Your task to perform on an android device: Open privacy settings Image 0: 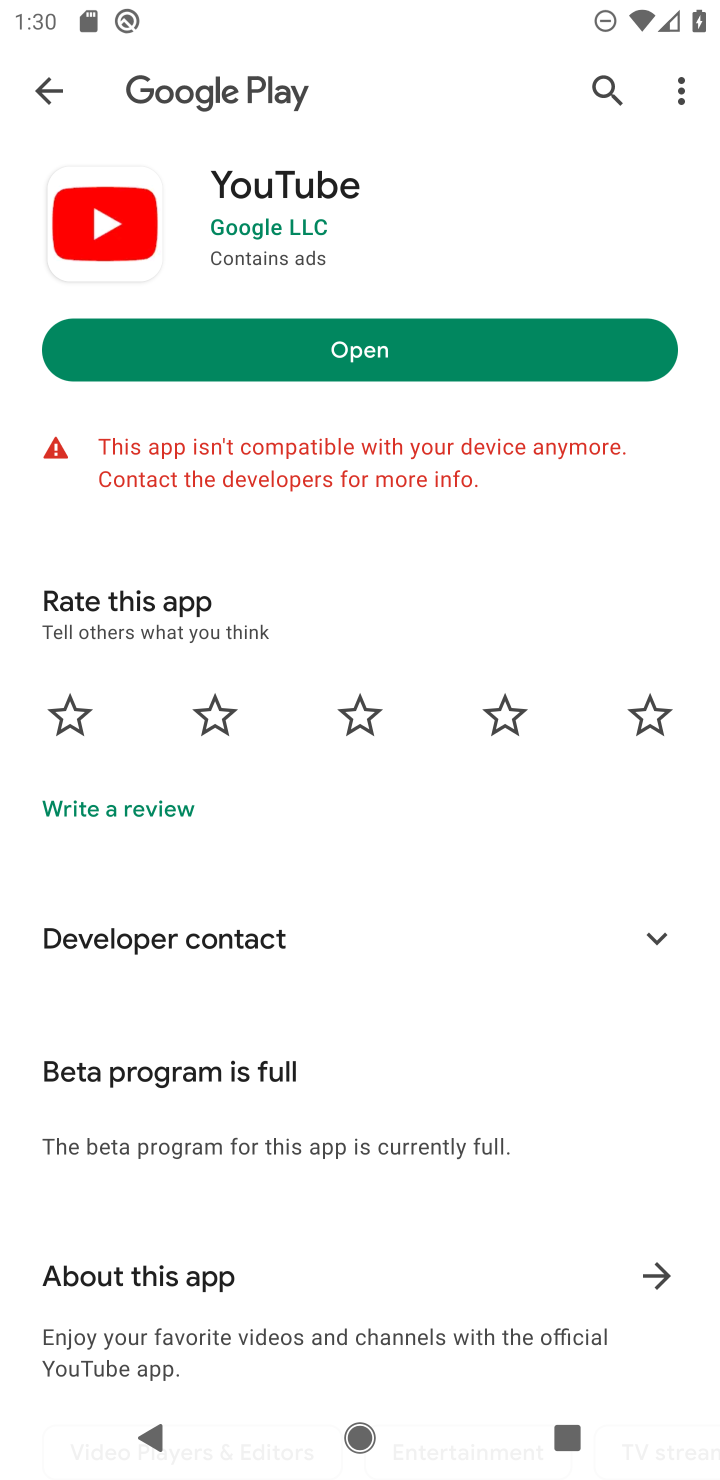
Step 0: press home button
Your task to perform on an android device: Open privacy settings Image 1: 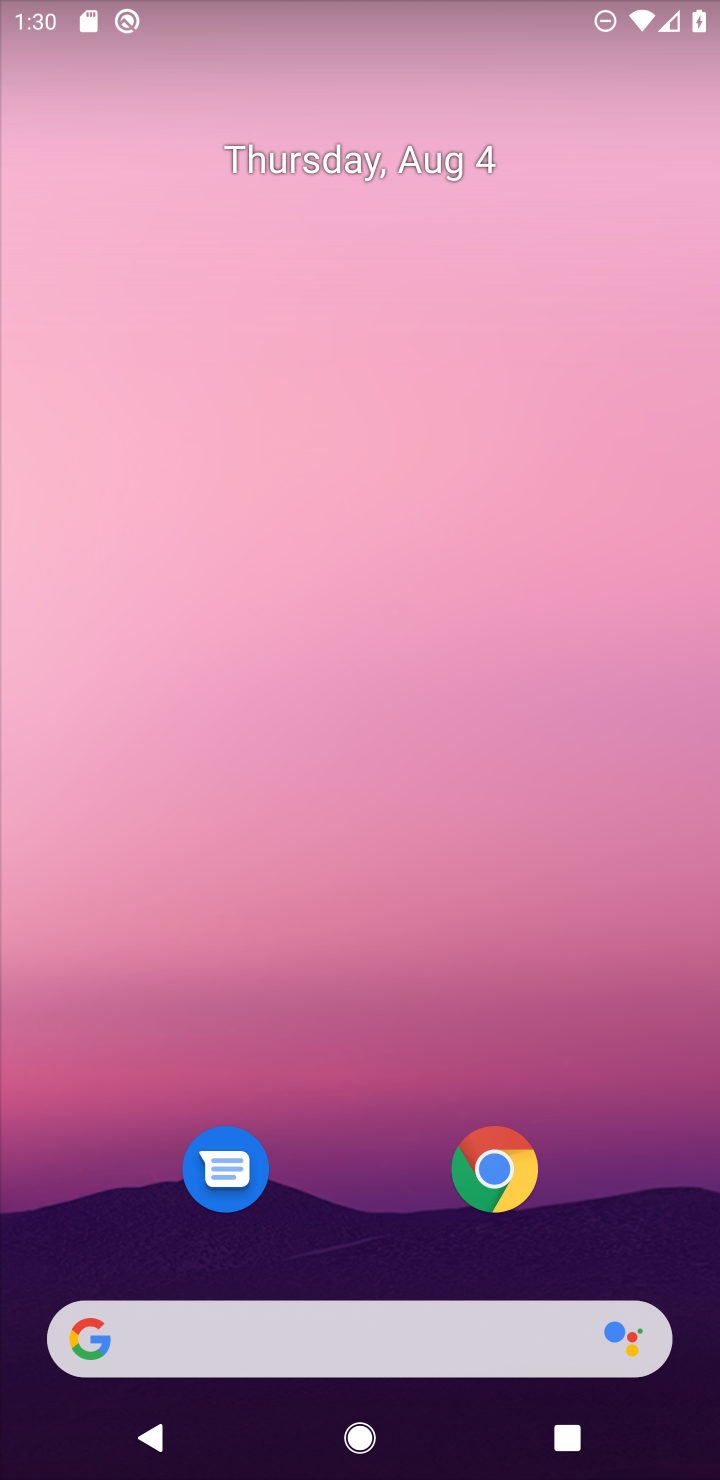
Step 1: drag from (413, 926) to (433, 106)
Your task to perform on an android device: Open privacy settings Image 2: 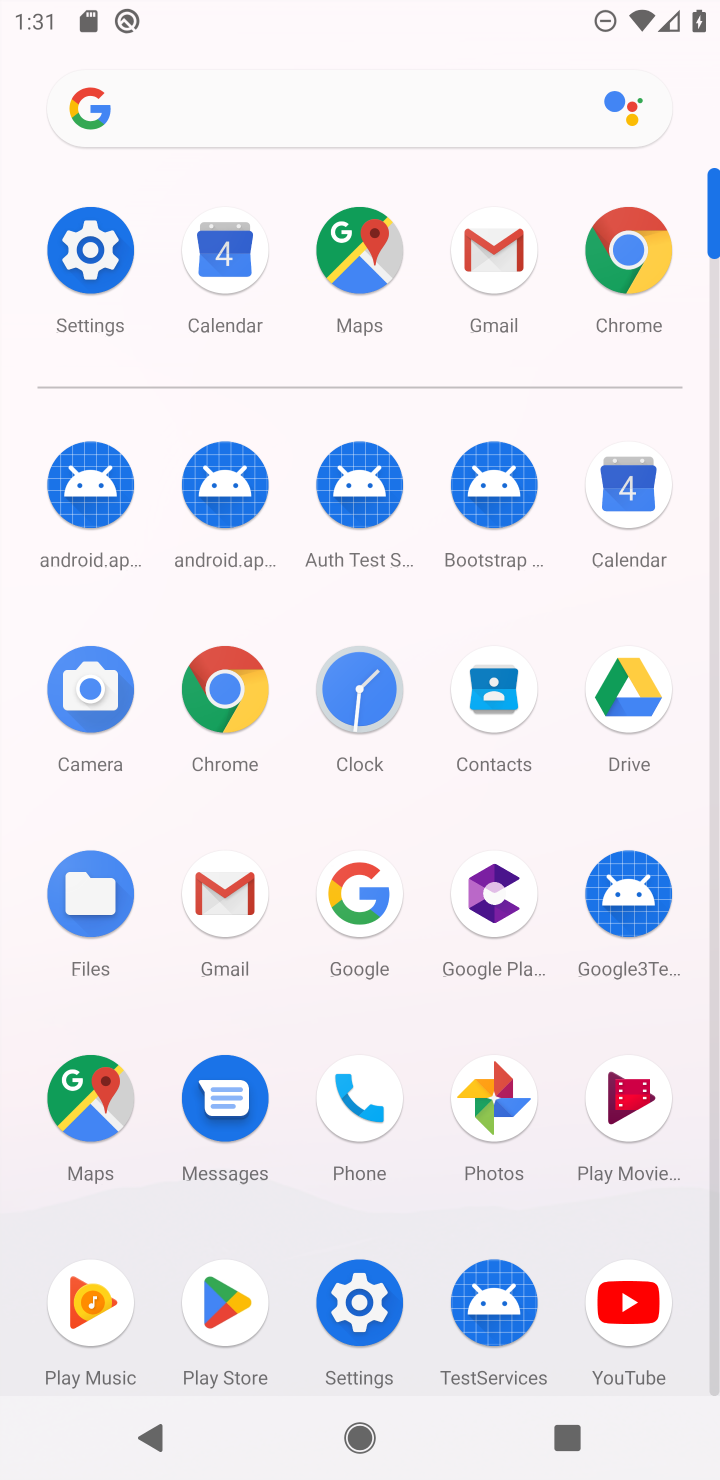
Step 2: click (99, 253)
Your task to perform on an android device: Open privacy settings Image 3: 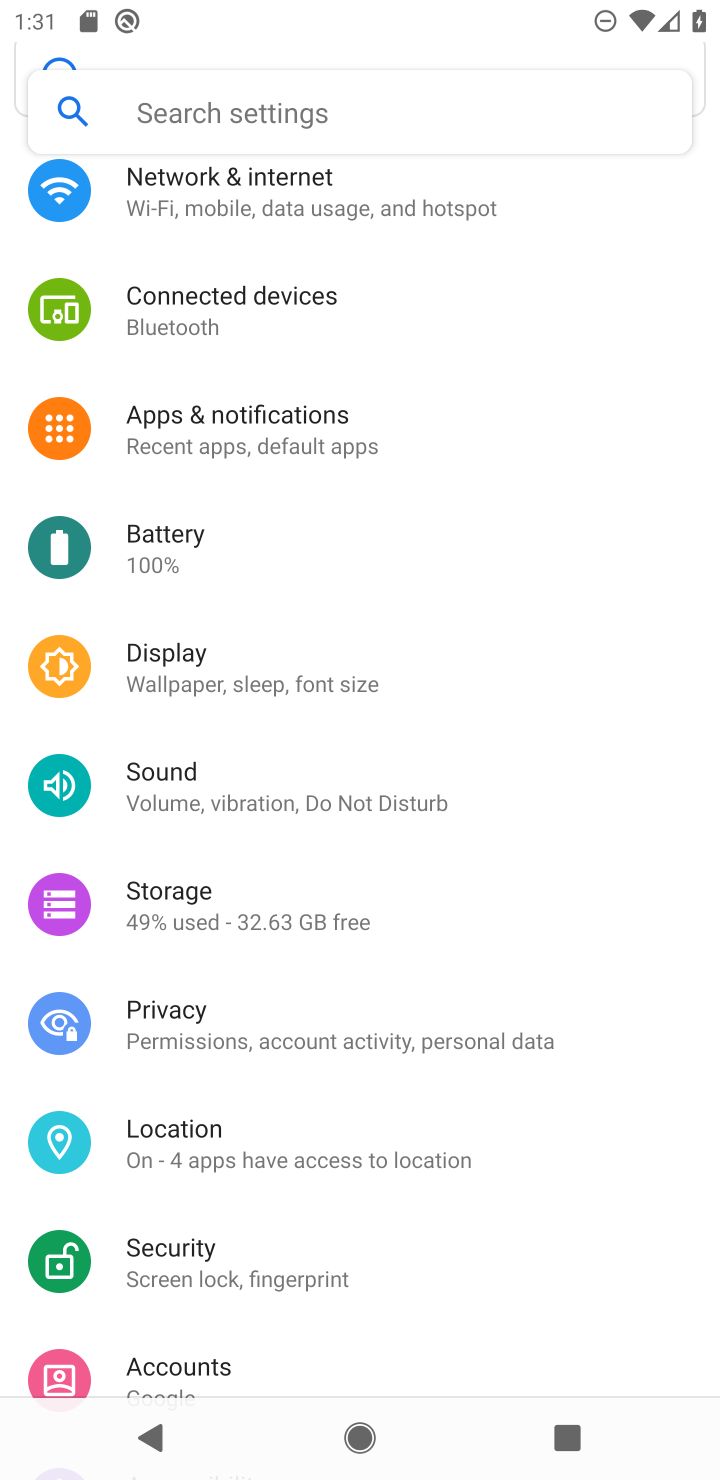
Step 3: click (189, 1034)
Your task to perform on an android device: Open privacy settings Image 4: 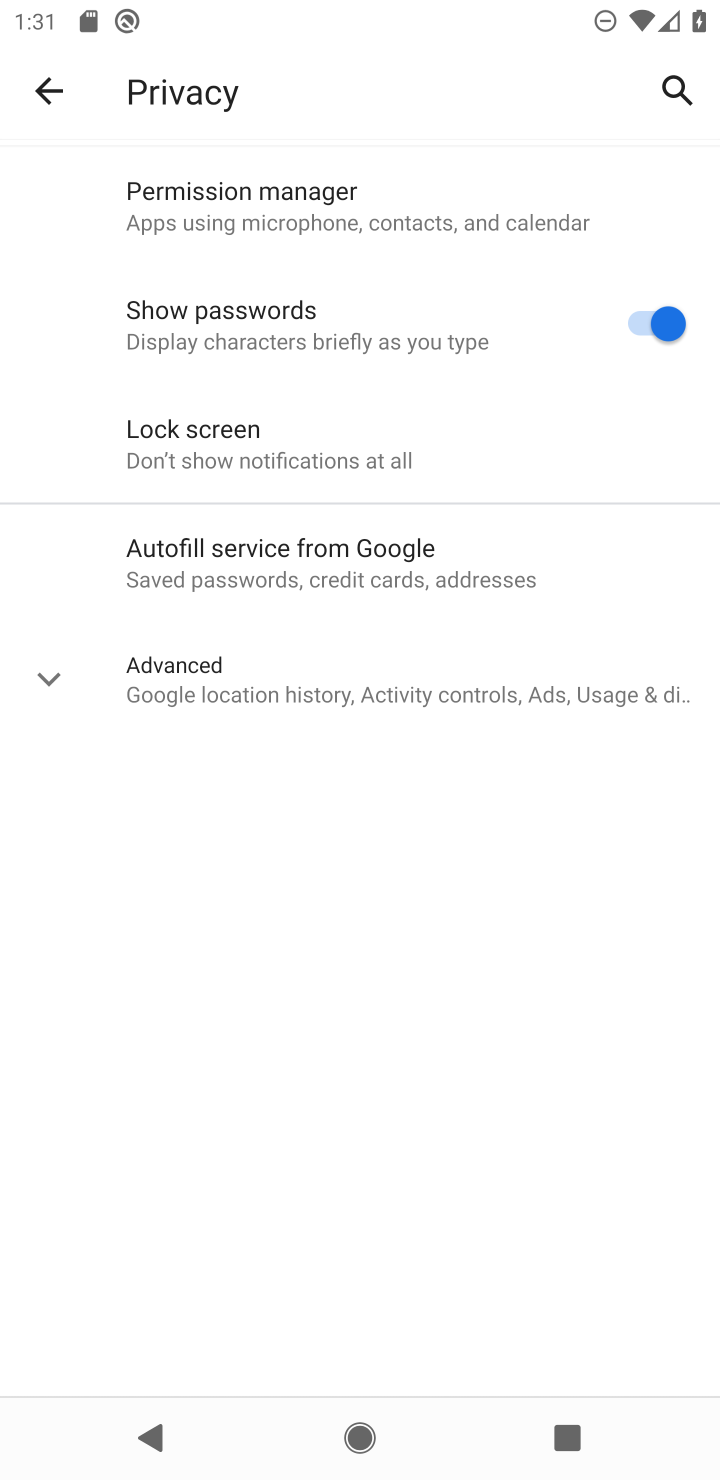
Step 4: task complete